Your task to perform on an android device: Empty the shopping cart on walmart.com. Image 0: 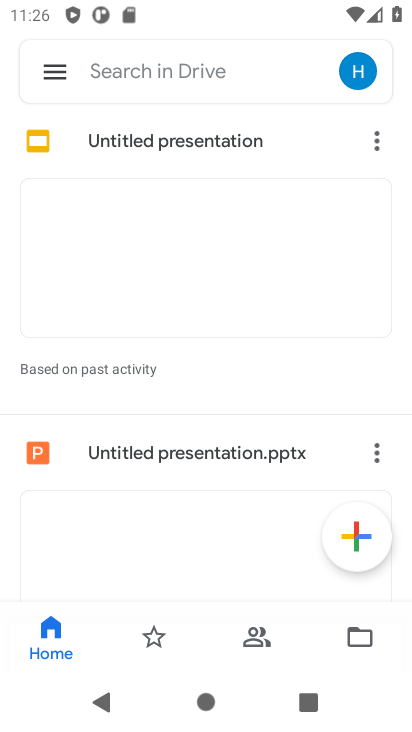
Step 0: press home button
Your task to perform on an android device: Empty the shopping cart on walmart.com. Image 1: 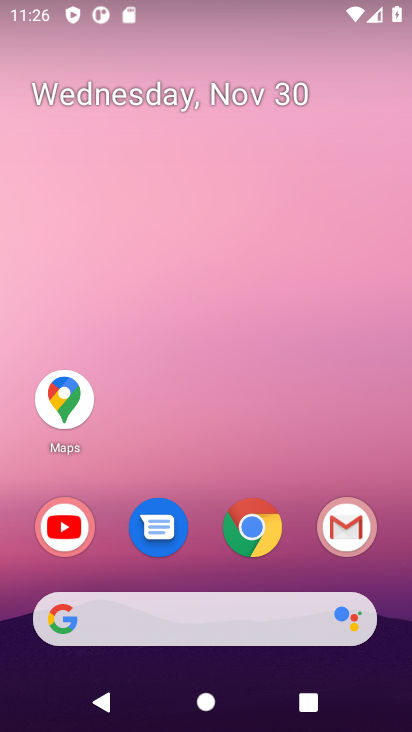
Step 1: click (259, 523)
Your task to perform on an android device: Empty the shopping cart on walmart.com. Image 2: 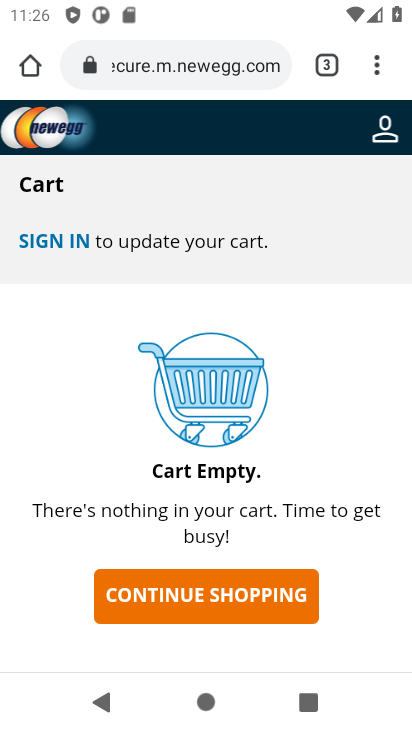
Step 2: click (162, 70)
Your task to perform on an android device: Empty the shopping cart on walmart.com. Image 3: 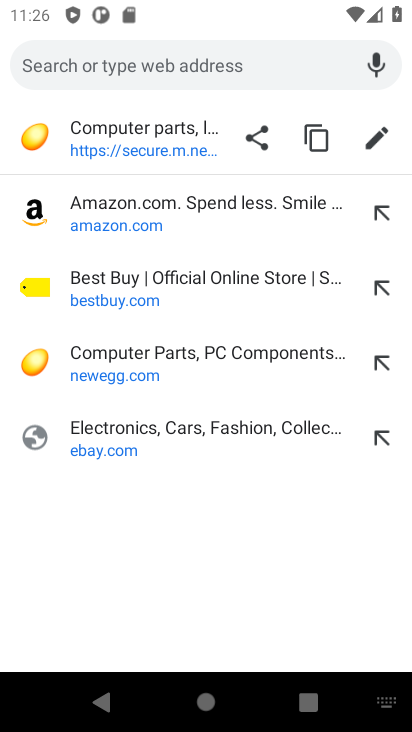
Step 3: type "walmart.com"
Your task to perform on an android device: Empty the shopping cart on walmart.com. Image 4: 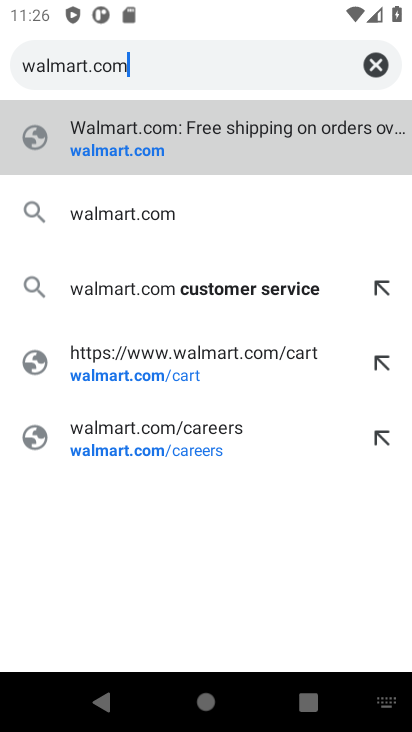
Step 4: click (137, 152)
Your task to perform on an android device: Empty the shopping cart on walmart.com. Image 5: 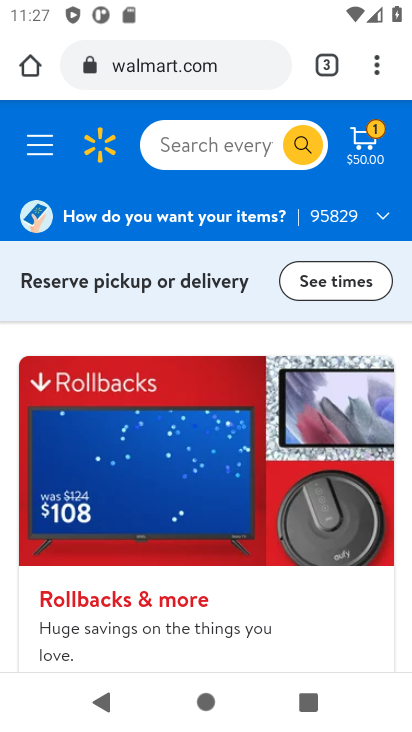
Step 5: click (365, 143)
Your task to perform on an android device: Empty the shopping cart on walmart.com. Image 6: 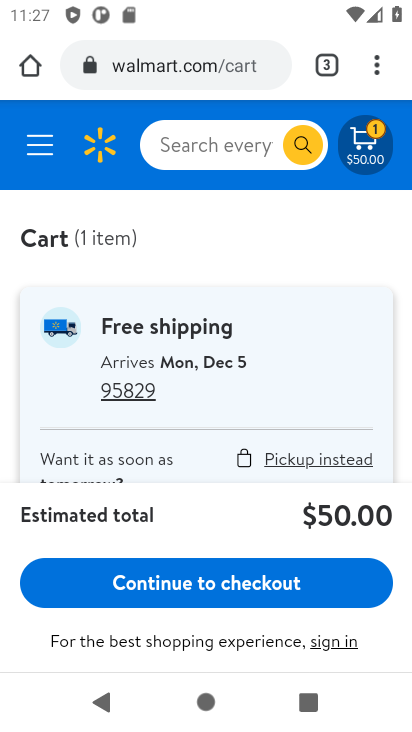
Step 6: drag from (318, 384) to (312, 237)
Your task to perform on an android device: Empty the shopping cart on walmart.com. Image 7: 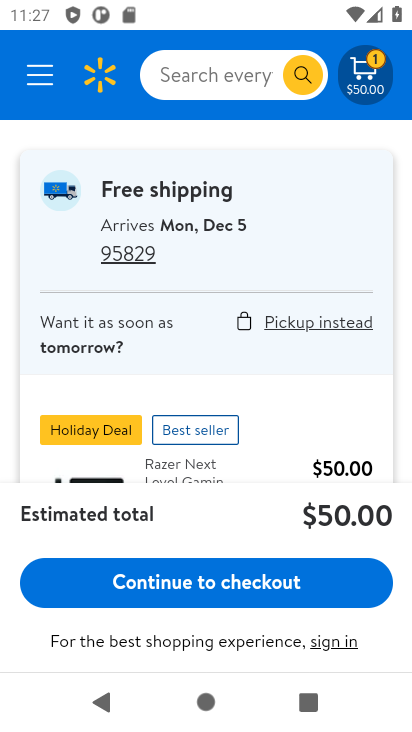
Step 7: drag from (319, 390) to (299, 179)
Your task to perform on an android device: Empty the shopping cart on walmart.com. Image 8: 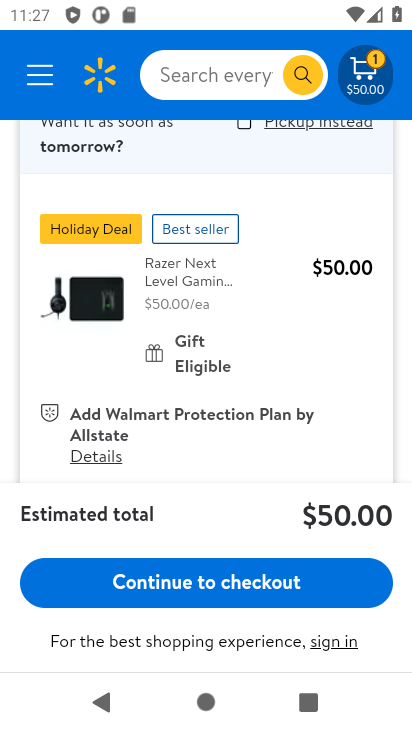
Step 8: drag from (327, 345) to (308, 170)
Your task to perform on an android device: Empty the shopping cart on walmart.com. Image 9: 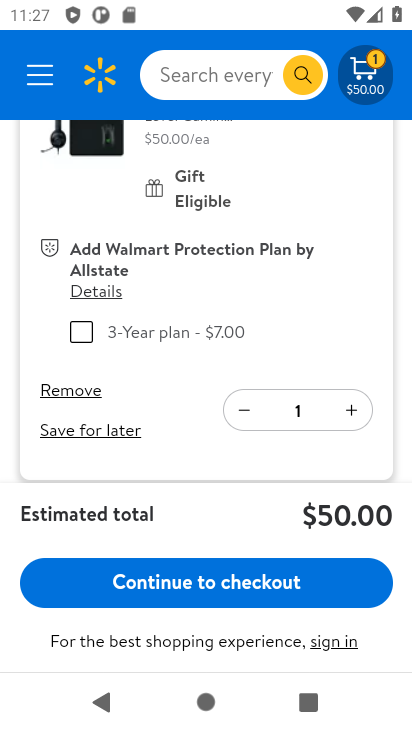
Step 9: drag from (165, 422) to (150, 259)
Your task to perform on an android device: Empty the shopping cart on walmart.com. Image 10: 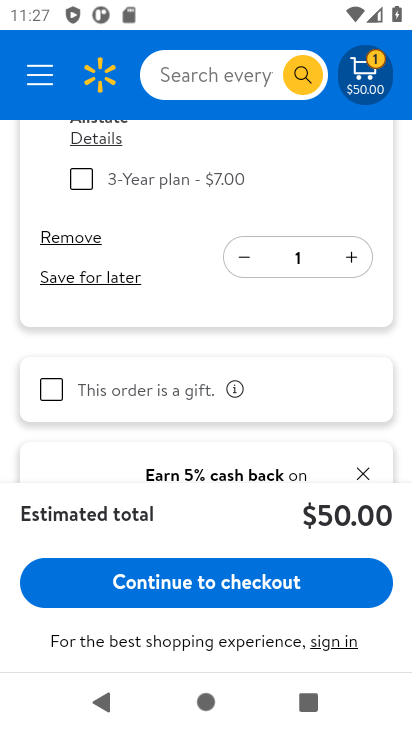
Step 10: click (78, 240)
Your task to perform on an android device: Empty the shopping cart on walmart.com. Image 11: 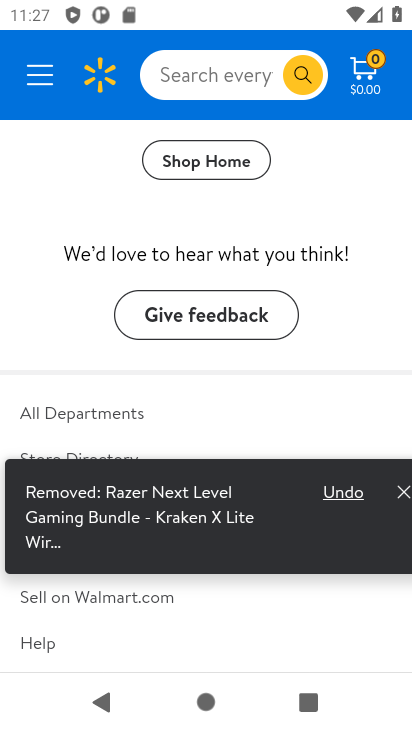
Step 11: click (392, 245)
Your task to perform on an android device: Empty the shopping cart on walmart.com. Image 12: 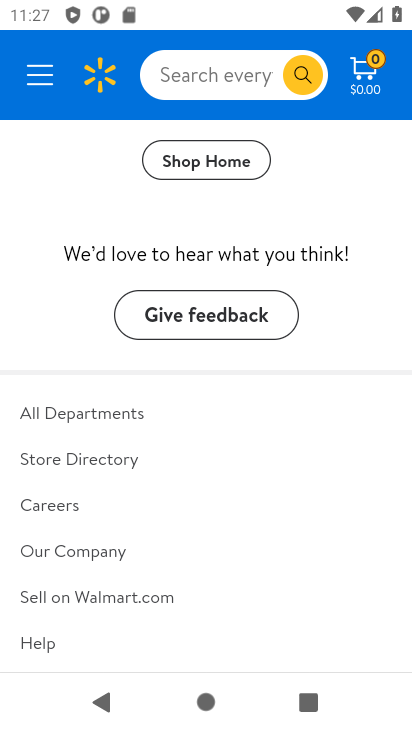
Step 12: click (392, 247)
Your task to perform on an android device: Empty the shopping cart on walmart.com. Image 13: 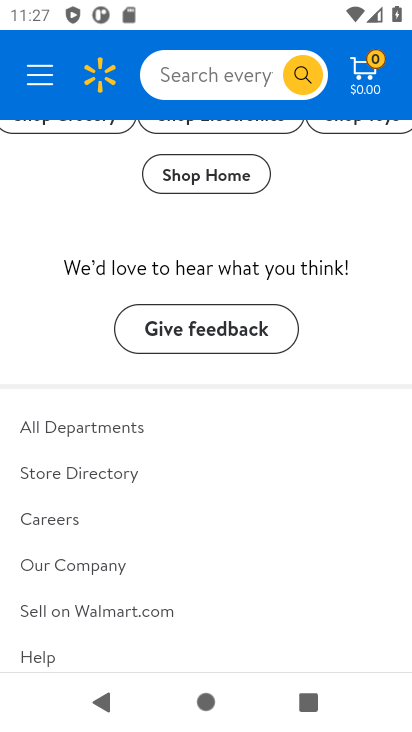
Step 13: task complete